Your task to perform on an android device: visit the assistant section in the google photos Image 0: 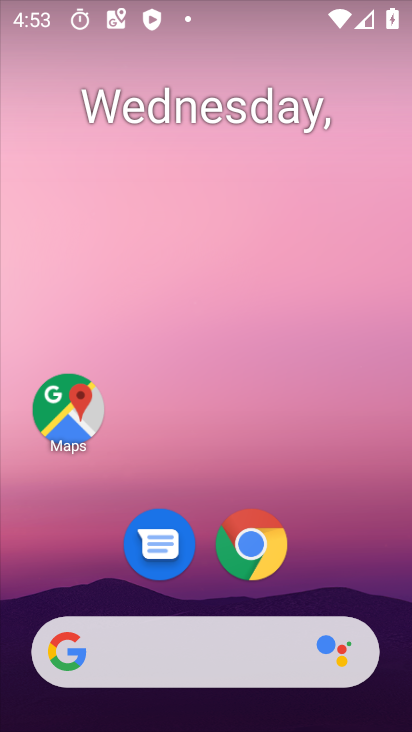
Step 0: drag from (179, 7) to (399, 61)
Your task to perform on an android device: visit the assistant section in the google photos Image 1: 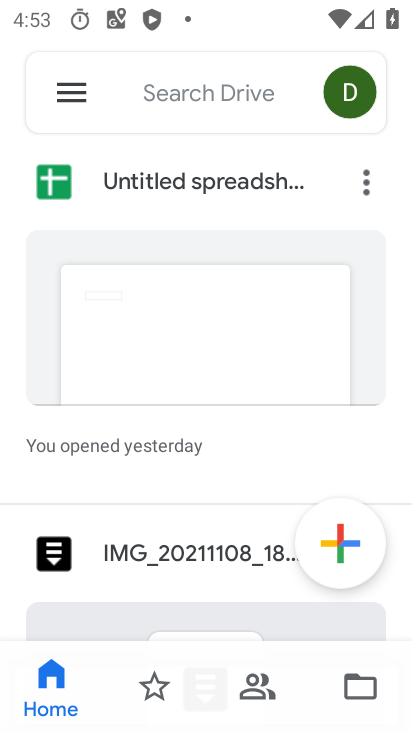
Step 1: press home button
Your task to perform on an android device: visit the assistant section in the google photos Image 2: 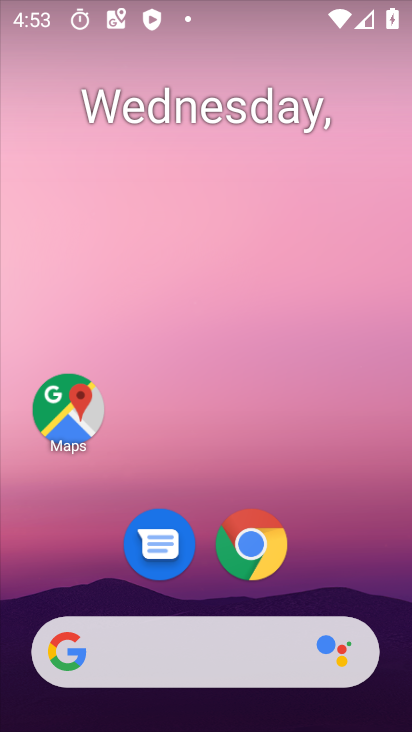
Step 2: drag from (198, 615) to (193, 33)
Your task to perform on an android device: visit the assistant section in the google photos Image 3: 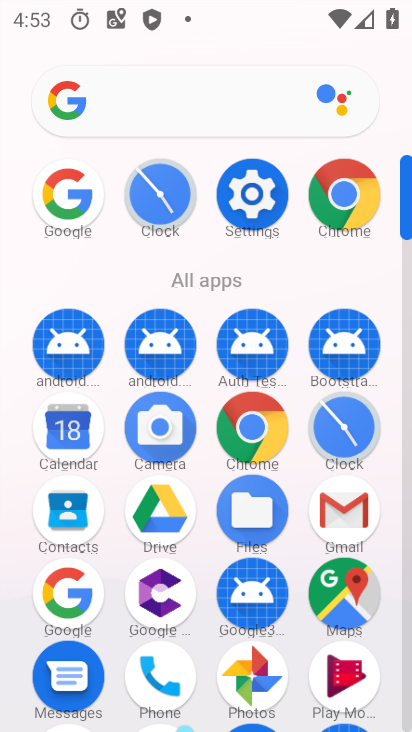
Step 3: click (243, 687)
Your task to perform on an android device: visit the assistant section in the google photos Image 4: 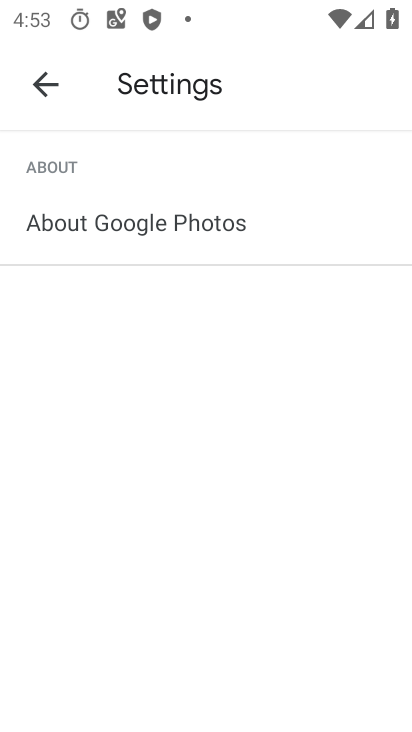
Step 4: click (40, 86)
Your task to perform on an android device: visit the assistant section in the google photos Image 5: 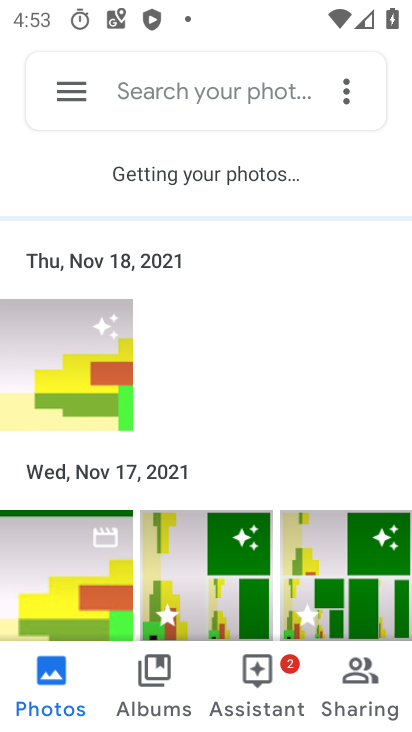
Step 5: click (263, 671)
Your task to perform on an android device: visit the assistant section in the google photos Image 6: 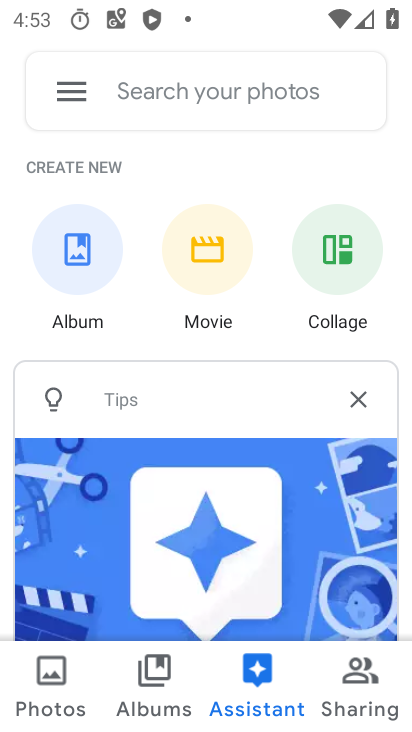
Step 6: task complete